Your task to perform on an android device: What is the news today? Image 0: 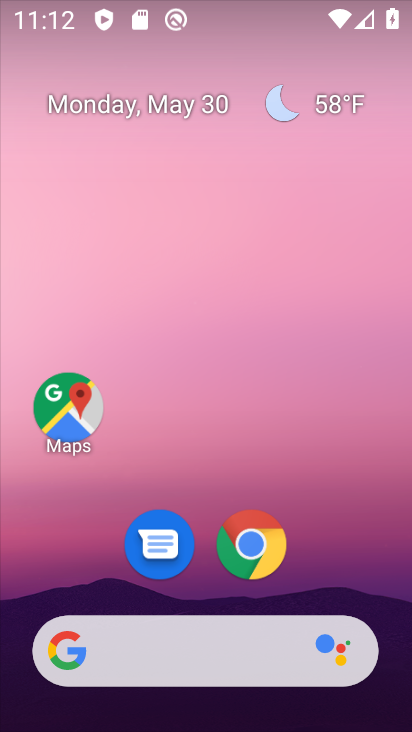
Step 0: click (252, 637)
Your task to perform on an android device: What is the news today? Image 1: 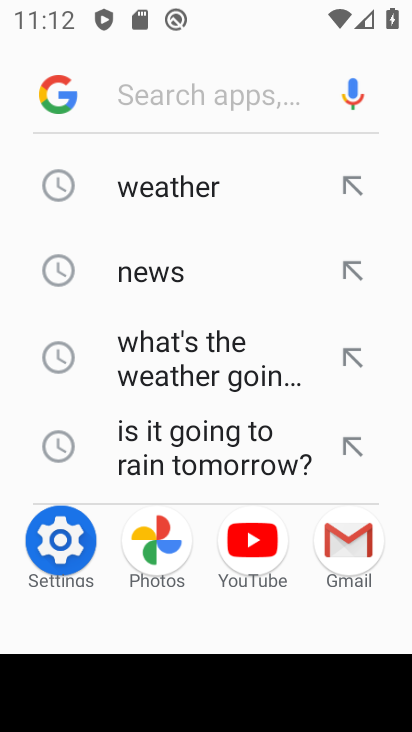
Step 1: click (225, 184)
Your task to perform on an android device: What is the news today? Image 2: 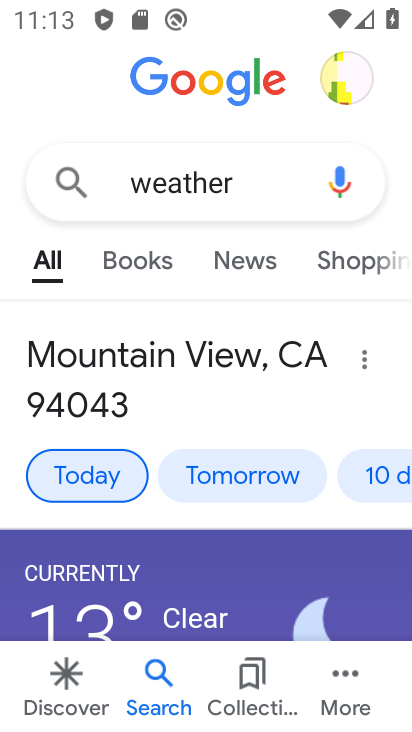
Step 2: task complete